Your task to perform on an android device: delete browsing data in the chrome app Image 0: 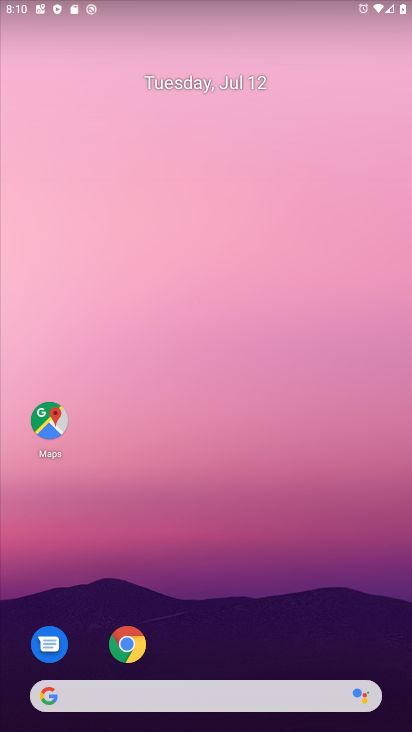
Step 0: click (127, 646)
Your task to perform on an android device: delete browsing data in the chrome app Image 1: 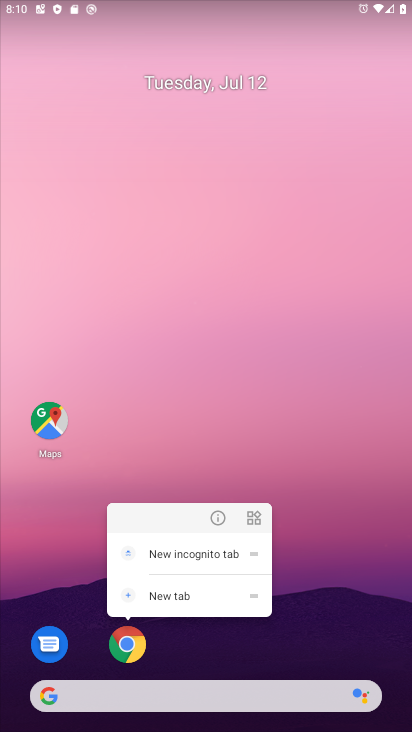
Step 1: click (127, 646)
Your task to perform on an android device: delete browsing data in the chrome app Image 2: 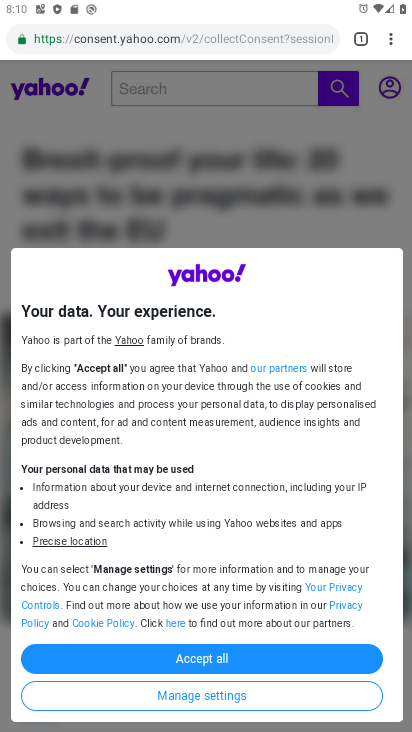
Step 2: click (391, 38)
Your task to perform on an android device: delete browsing data in the chrome app Image 3: 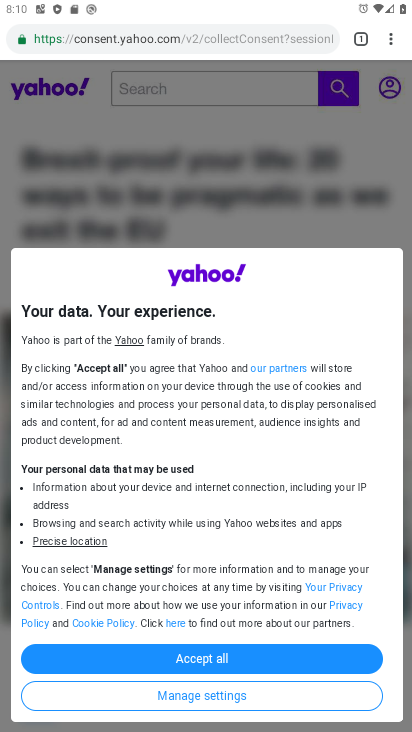
Step 3: click (391, 39)
Your task to perform on an android device: delete browsing data in the chrome app Image 4: 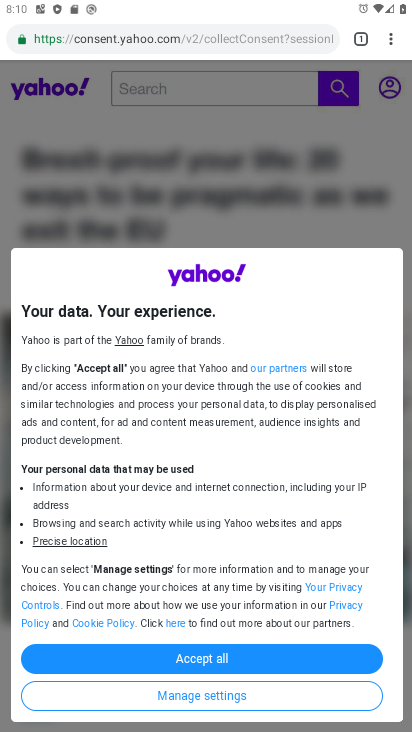
Step 4: click (397, 43)
Your task to perform on an android device: delete browsing data in the chrome app Image 5: 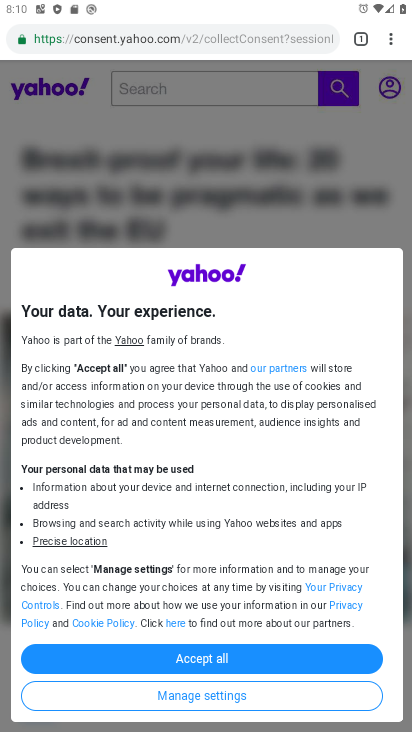
Step 5: click (392, 35)
Your task to perform on an android device: delete browsing data in the chrome app Image 6: 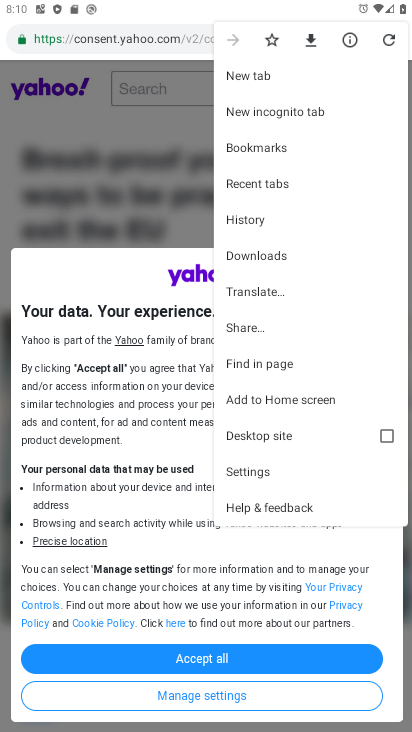
Step 6: click (246, 216)
Your task to perform on an android device: delete browsing data in the chrome app Image 7: 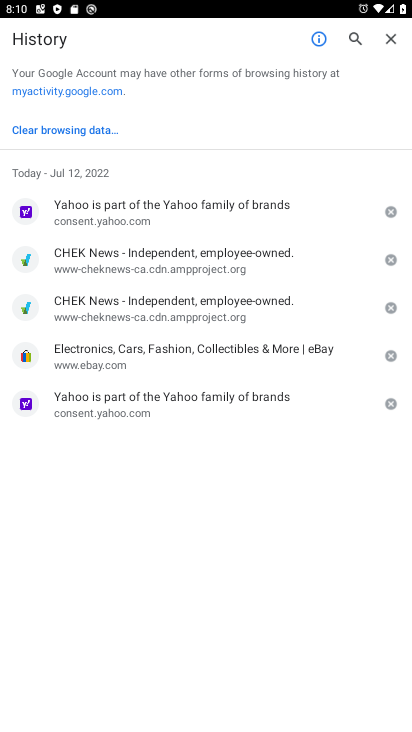
Step 7: click (48, 135)
Your task to perform on an android device: delete browsing data in the chrome app Image 8: 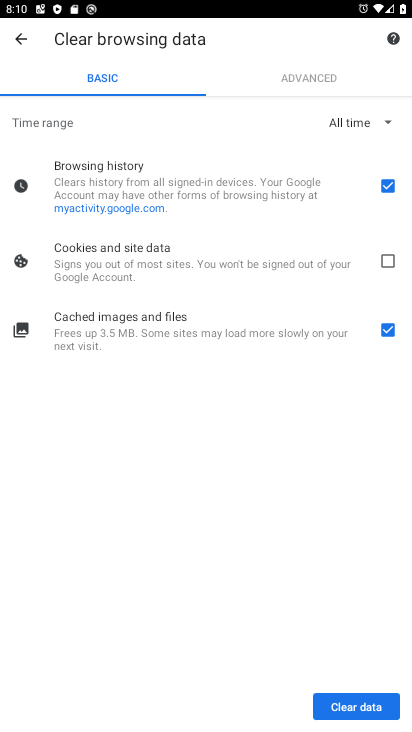
Step 8: click (382, 262)
Your task to perform on an android device: delete browsing data in the chrome app Image 9: 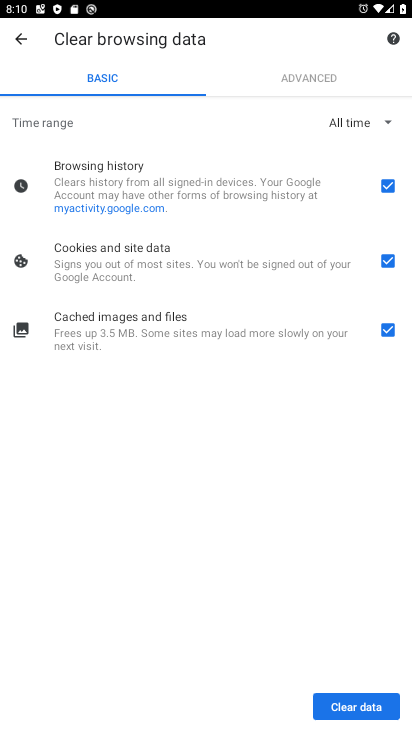
Step 9: click (347, 703)
Your task to perform on an android device: delete browsing data in the chrome app Image 10: 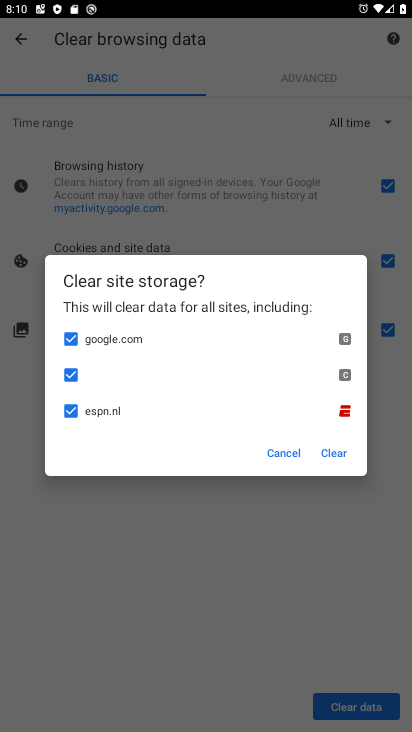
Step 10: click (334, 449)
Your task to perform on an android device: delete browsing data in the chrome app Image 11: 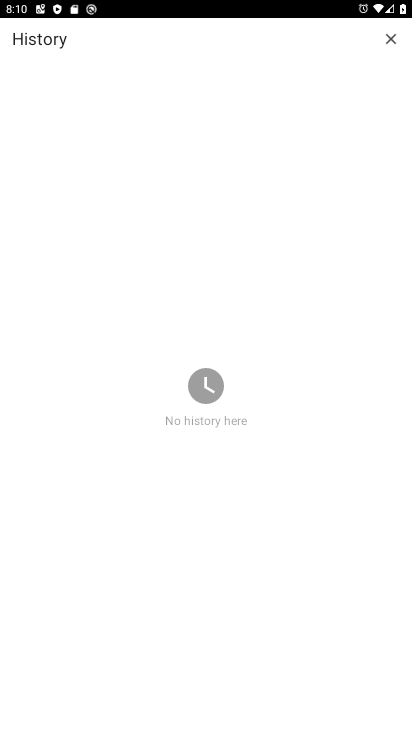
Step 11: task complete